Your task to perform on an android device: Open internet settings Image 0: 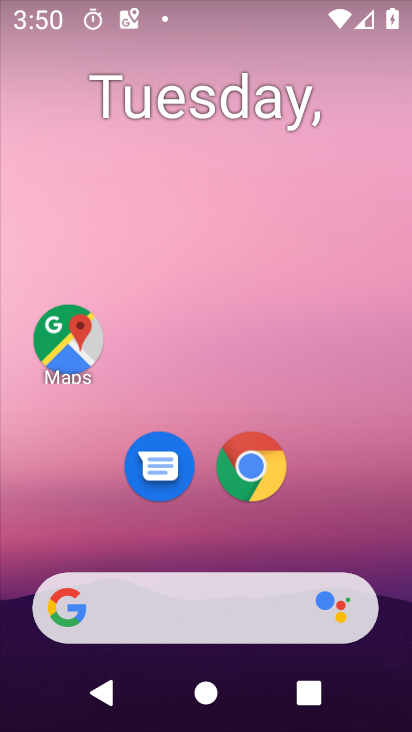
Step 0: drag from (373, 525) to (362, 191)
Your task to perform on an android device: Open internet settings Image 1: 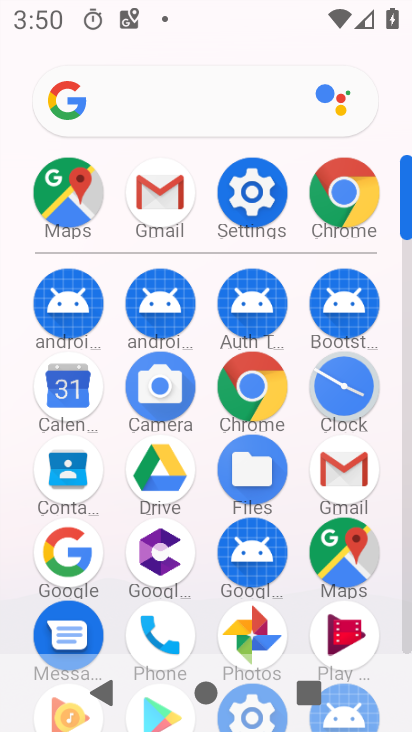
Step 1: click (255, 208)
Your task to perform on an android device: Open internet settings Image 2: 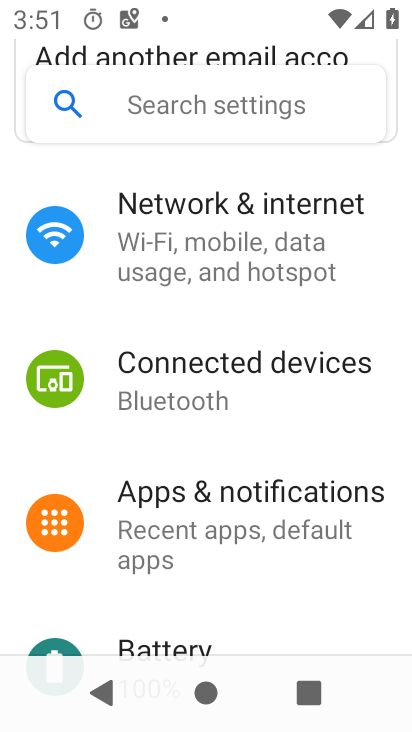
Step 2: click (311, 271)
Your task to perform on an android device: Open internet settings Image 3: 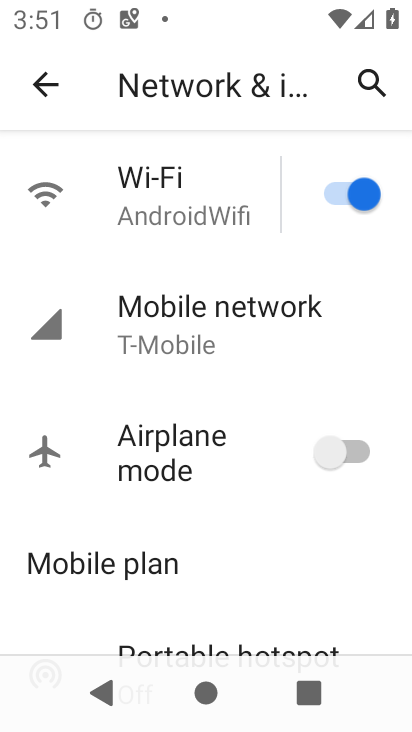
Step 3: task complete